Your task to perform on an android device: change text size in settings app Image 0: 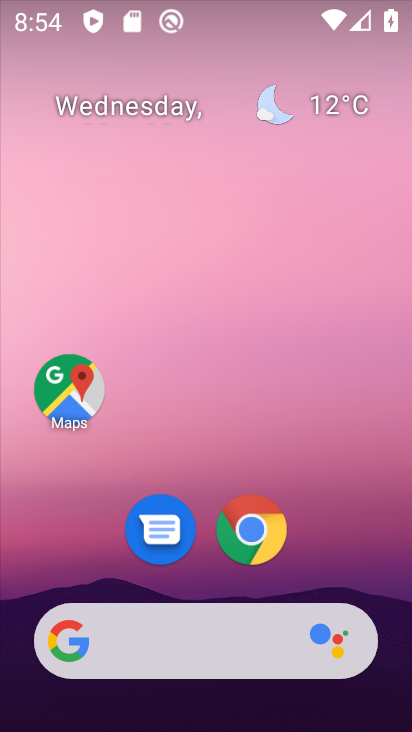
Step 0: drag from (173, 595) to (202, 62)
Your task to perform on an android device: change text size in settings app Image 1: 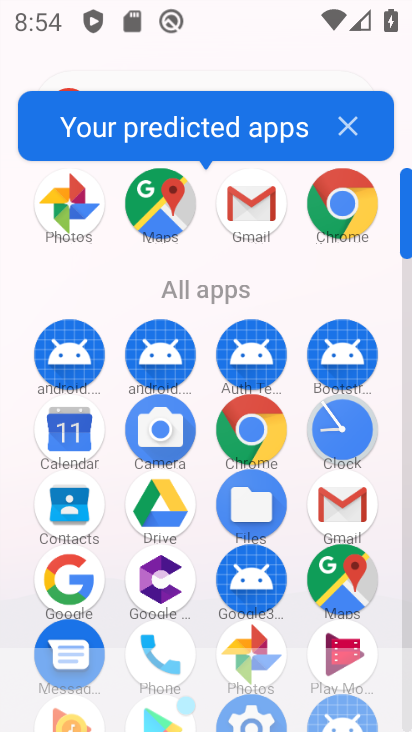
Step 1: drag from (295, 647) to (263, 243)
Your task to perform on an android device: change text size in settings app Image 2: 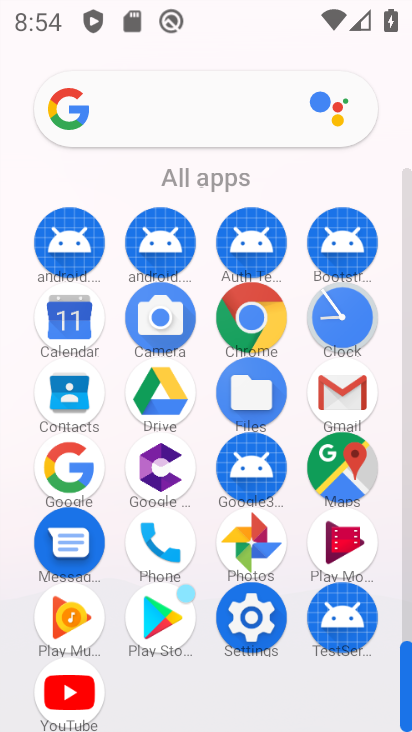
Step 2: click (235, 624)
Your task to perform on an android device: change text size in settings app Image 3: 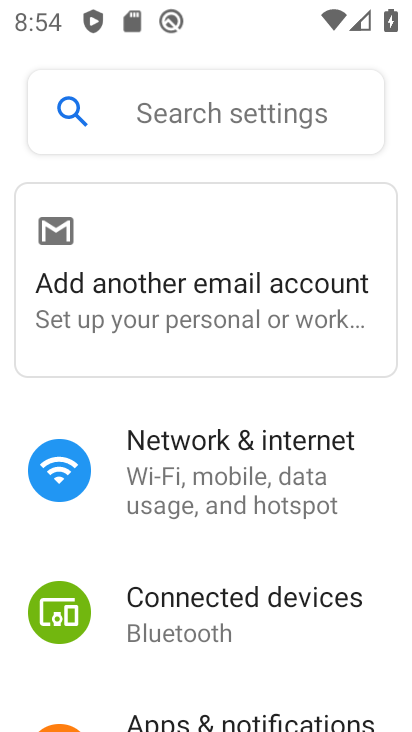
Step 3: drag from (222, 704) to (229, 215)
Your task to perform on an android device: change text size in settings app Image 4: 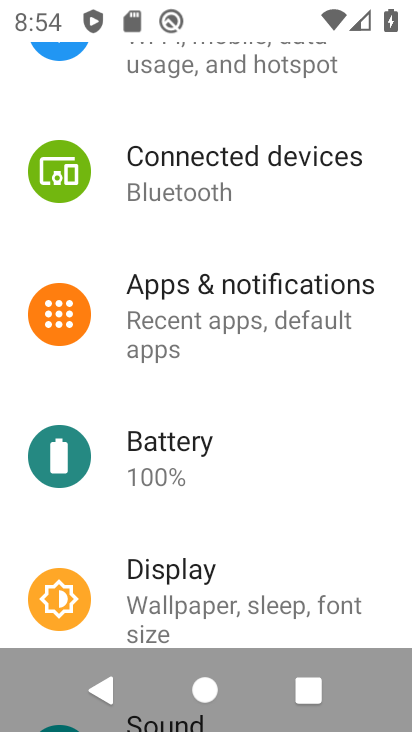
Step 4: drag from (249, 607) to (263, 98)
Your task to perform on an android device: change text size in settings app Image 5: 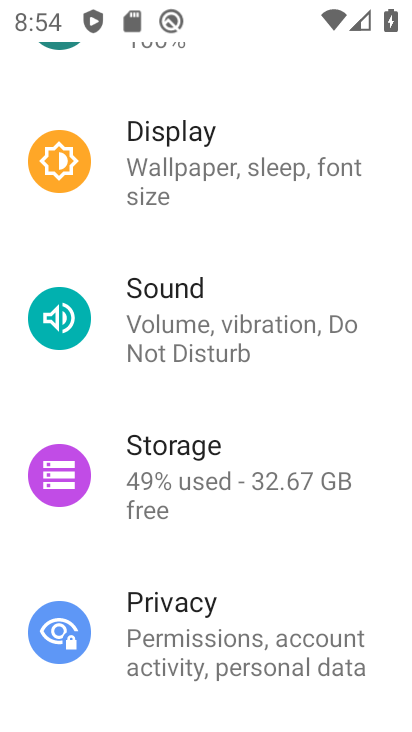
Step 5: drag from (262, 646) to (262, 101)
Your task to perform on an android device: change text size in settings app Image 6: 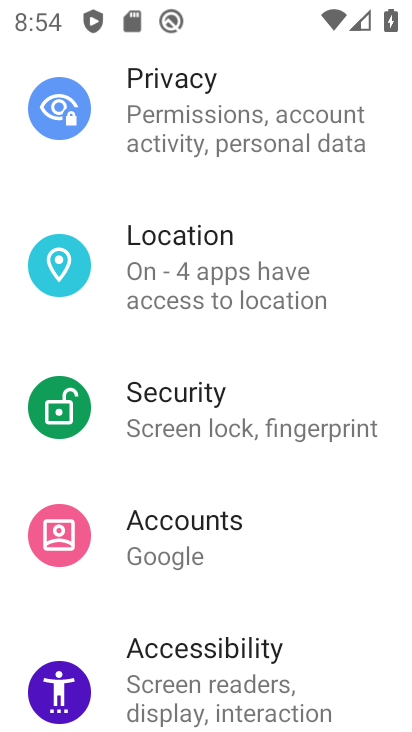
Step 6: click (241, 679)
Your task to perform on an android device: change text size in settings app Image 7: 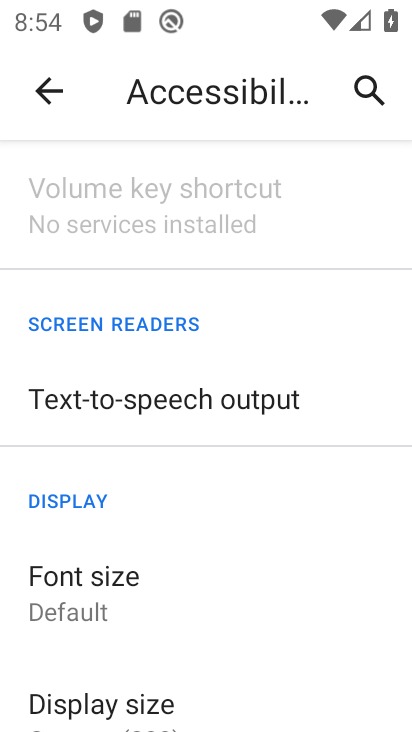
Step 7: click (81, 606)
Your task to perform on an android device: change text size in settings app Image 8: 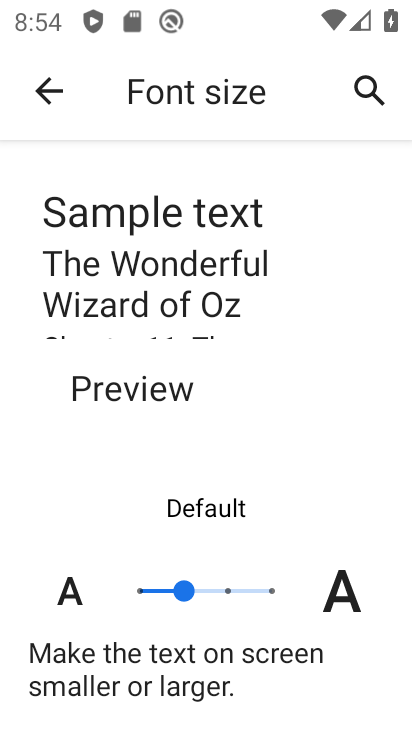
Step 8: click (230, 589)
Your task to perform on an android device: change text size in settings app Image 9: 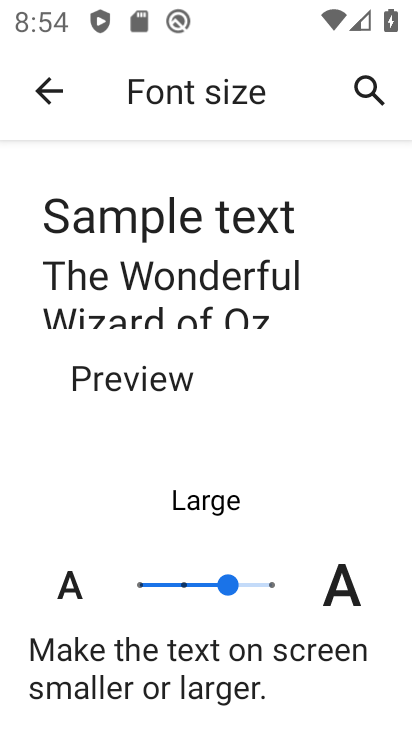
Step 9: task complete